Your task to perform on an android device: Set the phone to "Do not disturb". Image 0: 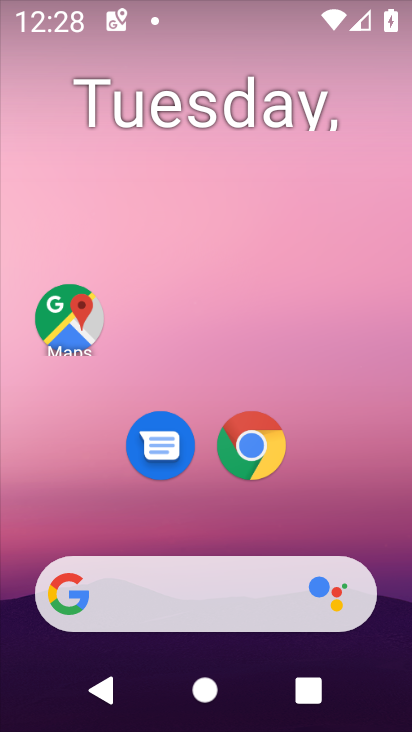
Step 0: drag from (384, 540) to (370, 255)
Your task to perform on an android device: Set the phone to "Do not disturb". Image 1: 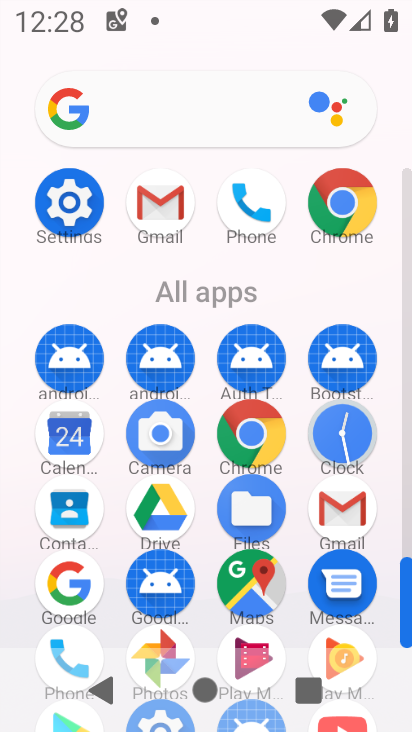
Step 1: drag from (385, 540) to (384, 328)
Your task to perform on an android device: Set the phone to "Do not disturb". Image 2: 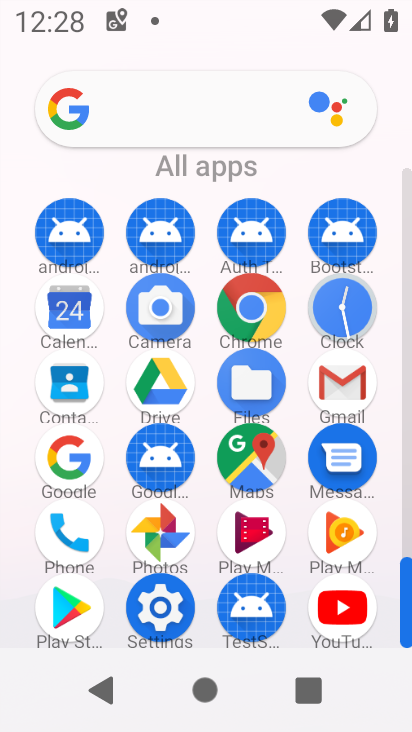
Step 2: click (138, 616)
Your task to perform on an android device: Set the phone to "Do not disturb". Image 3: 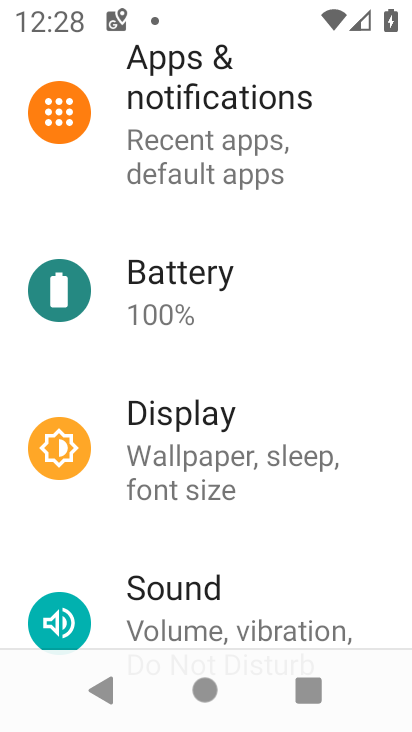
Step 3: drag from (337, 288) to (345, 433)
Your task to perform on an android device: Set the phone to "Do not disturb". Image 4: 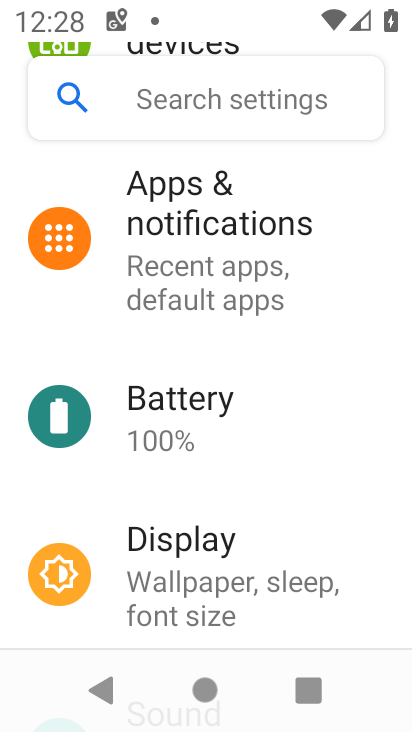
Step 4: drag from (342, 267) to (341, 438)
Your task to perform on an android device: Set the phone to "Do not disturb". Image 5: 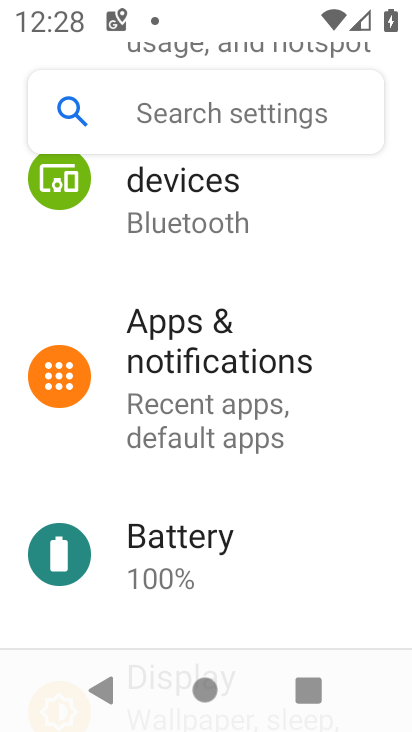
Step 5: drag from (353, 214) to (340, 363)
Your task to perform on an android device: Set the phone to "Do not disturb". Image 6: 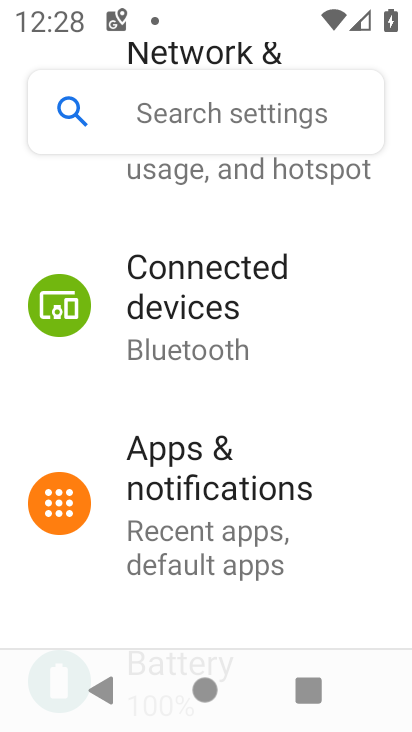
Step 6: drag from (351, 231) to (353, 362)
Your task to perform on an android device: Set the phone to "Do not disturb". Image 7: 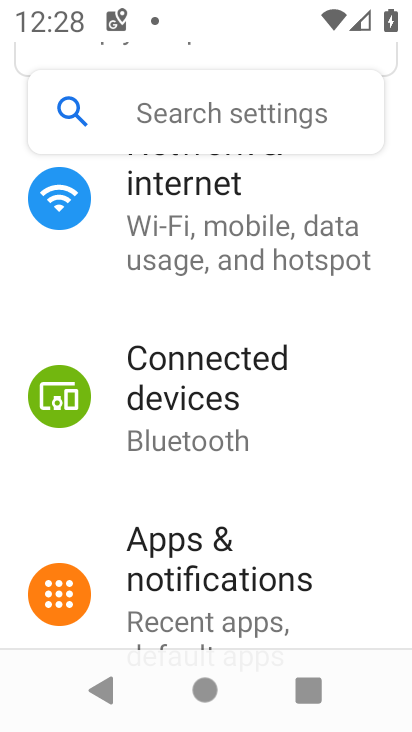
Step 7: drag from (376, 206) to (379, 378)
Your task to perform on an android device: Set the phone to "Do not disturb". Image 8: 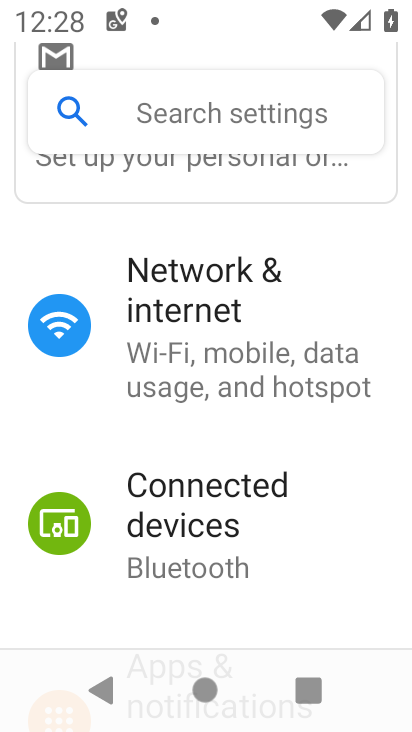
Step 8: drag from (382, 234) to (384, 399)
Your task to perform on an android device: Set the phone to "Do not disturb". Image 9: 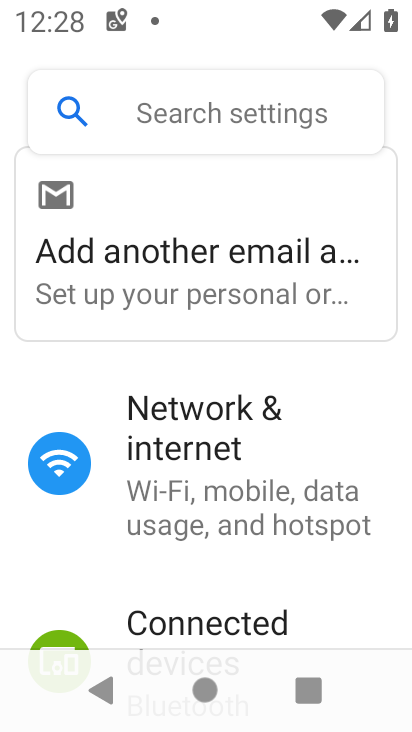
Step 9: drag from (381, 432) to (378, 319)
Your task to perform on an android device: Set the phone to "Do not disturb". Image 10: 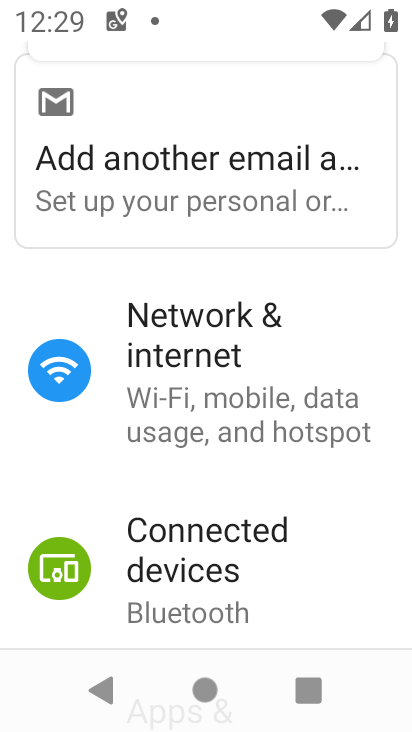
Step 10: drag from (369, 521) to (374, 382)
Your task to perform on an android device: Set the phone to "Do not disturb". Image 11: 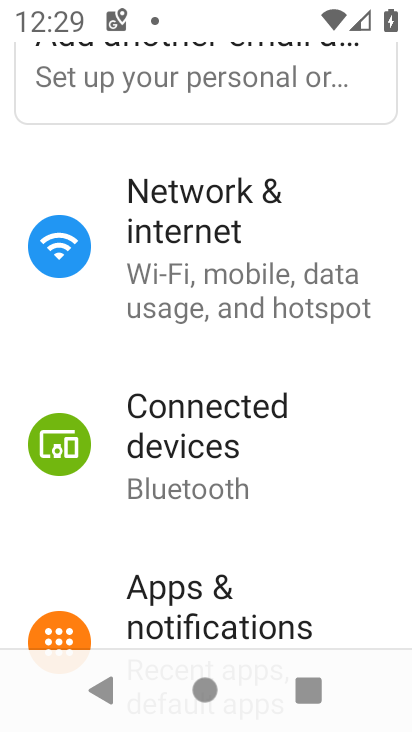
Step 11: drag from (366, 507) to (369, 380)
Your task to perform on an android device: Set the phone to "Do not disturb". Image 12: 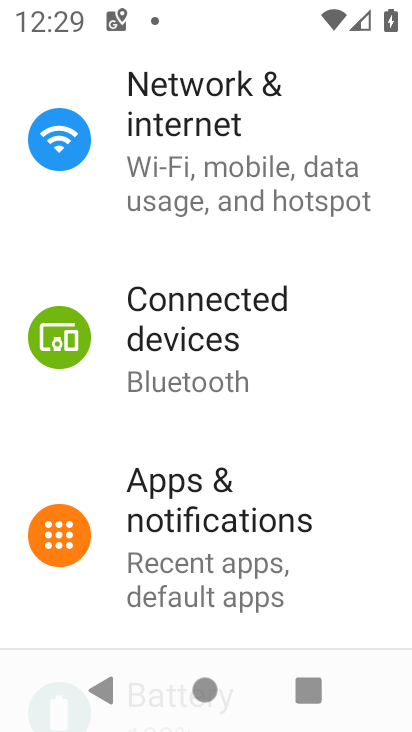
Step 12: drag from (361, 542) to (352, 424)
Your task to perform on an android device: Set the phone to "Do not disturb". Image 13: 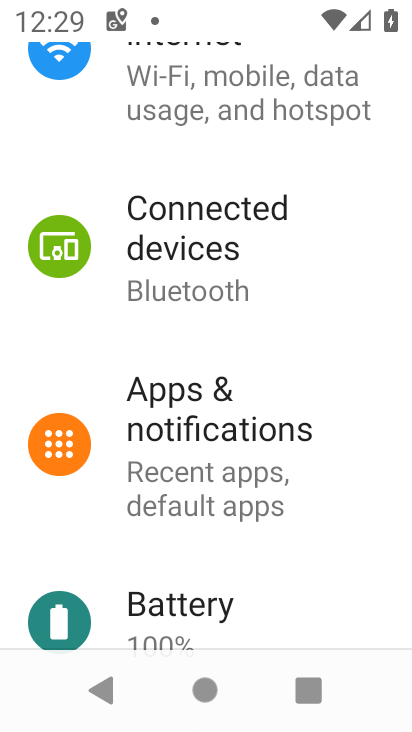
Step 13: drag from (352, 576) to (358, 432)
Your task to perform on an android device: Set the phone to "Do not disturb". Image 14: 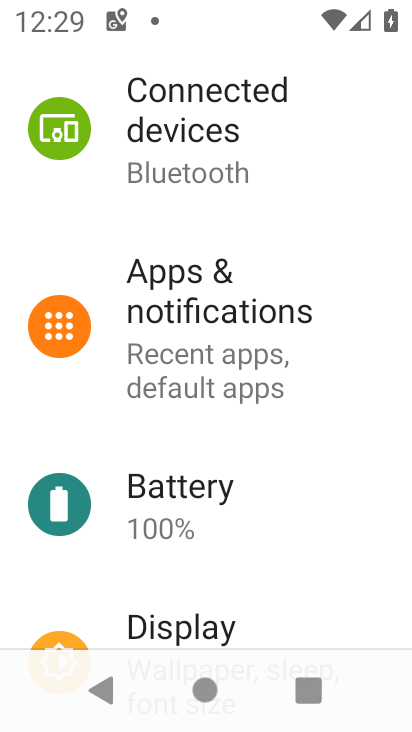
Step 14: drag from (352, 577) to (347, 402)
Your task to perform on an android device: Set the phone to "Do not disturb". Image 15: 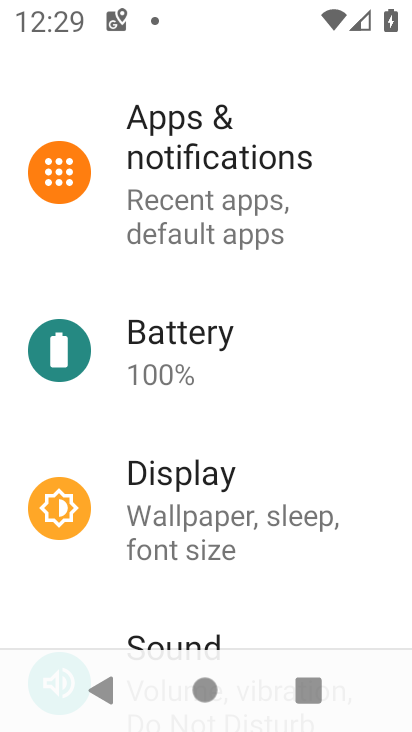
Step 15: drag from (356, 589) to (357, 434)
Your task to perform on an android device: Set the phone to "Do not disturb". Image 16: 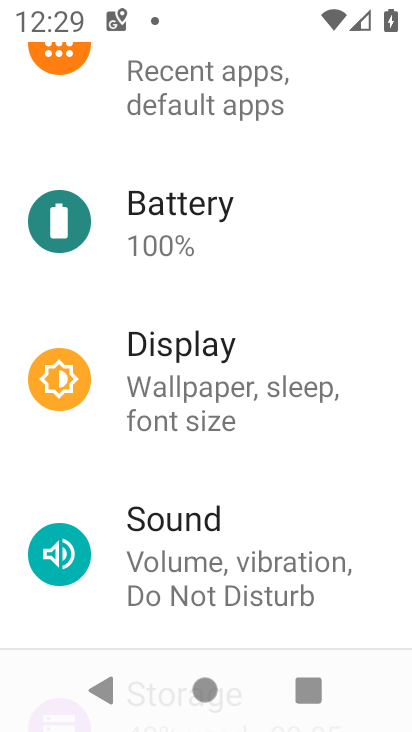
Step 16: drag from (359, 591) to (361, 434)
Your task to perform on an android device: Set the phone to "Do not disturb". Image 17: 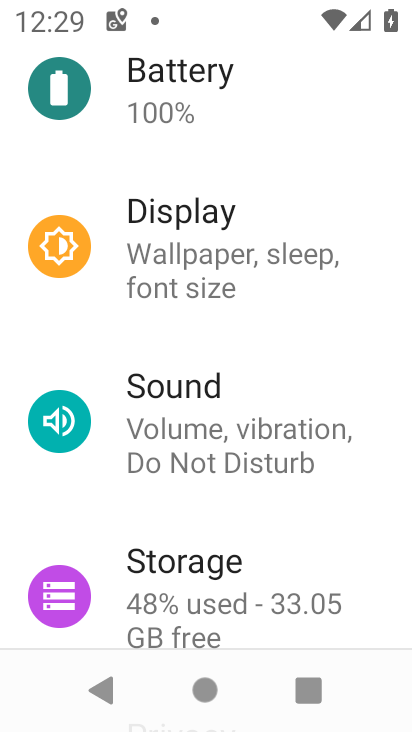
Step 17: drag from (363, 581) to (366, 467)
Your task to perform on an android device: Set the phone to "Do not disturb". Image 18: 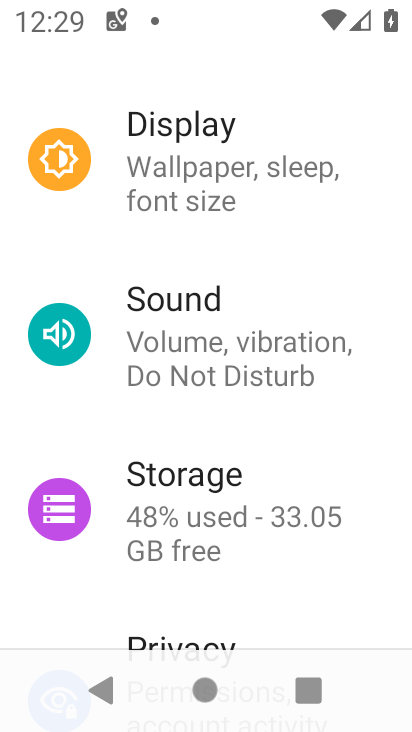
Step 18: click (313, 360)
Your task to perform on an android device: Set the phone to "Do not disturb". Image 19: 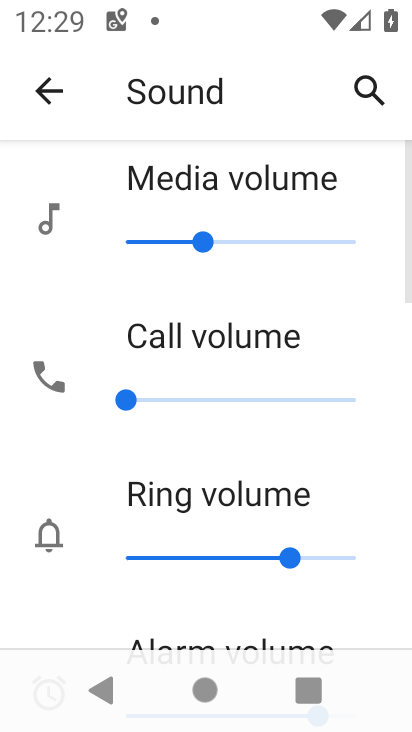
Step 19: drag from (347, 536) to (349, 376)
Your task to perform on an android device: Set the phone to "Do not disturb". Image 20: 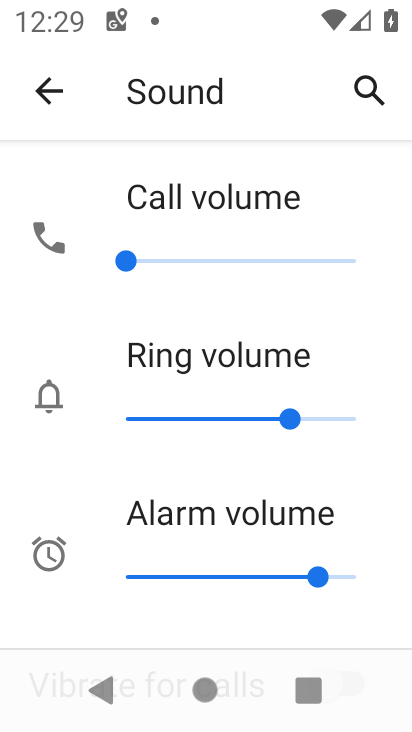
Step 20: drag from (362, 600) to (366, 433)
Your task to perform on an android device: Set the phone to "Do not disturb". Image 21: 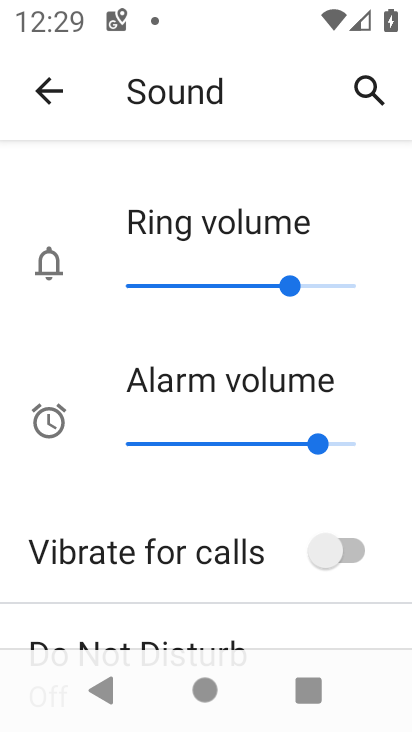
Step 21: drag from (368, 616) to (377, 432)
Your task to perform on an android device: Set the phone to "Do not disturb". Image 22: 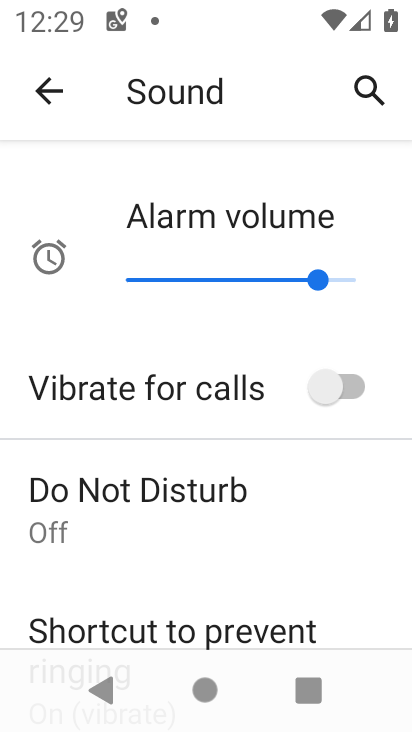
Step 22: click (175, 519)
Your task to perform on an android device: Set the phone to "Do not disturb". Image 23: 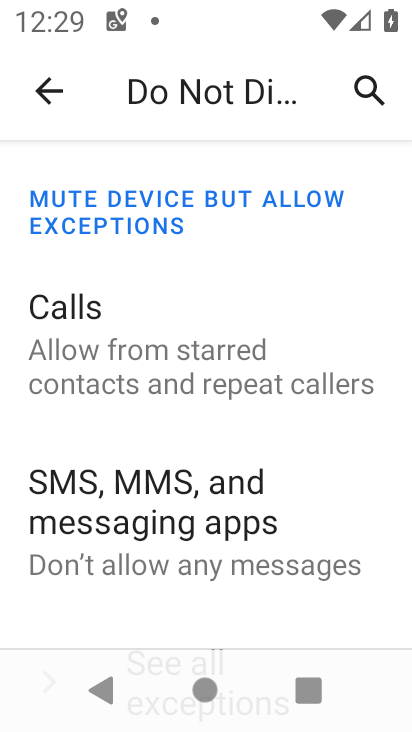
Step 23: drag from (360, 560) to (355, 409)
Your task to perform on an android device: Set the phone to "Do not disturb". Image 24: 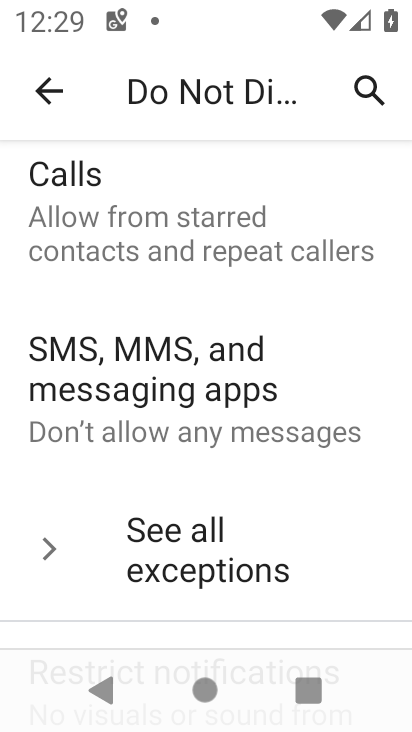
Step 24: drag from (345, 584) to (350, 448)
Your task to perform on an android device: Set the phone to "Do not disturb". Image 25: 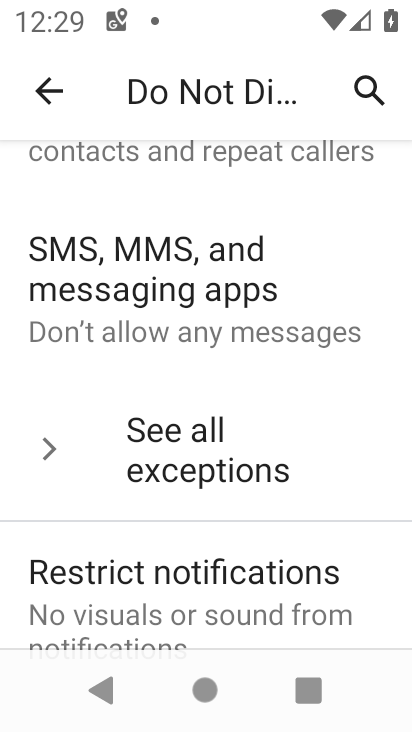
Step 25: drag from (375, 616) to (374, 444)
Your task to perform on an android device: Set the phone to "Do not disturb". Image 26: 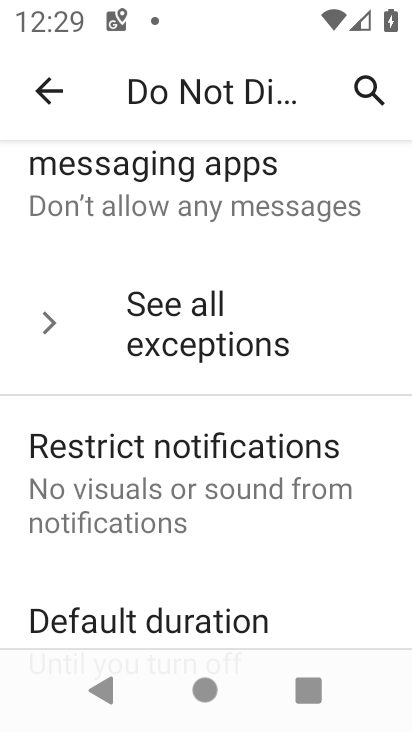
Step 26: drag from (352, 610) to (360, 454)
Your task to perform on an android device: Set the phone to "Do not disturb". Image 27: 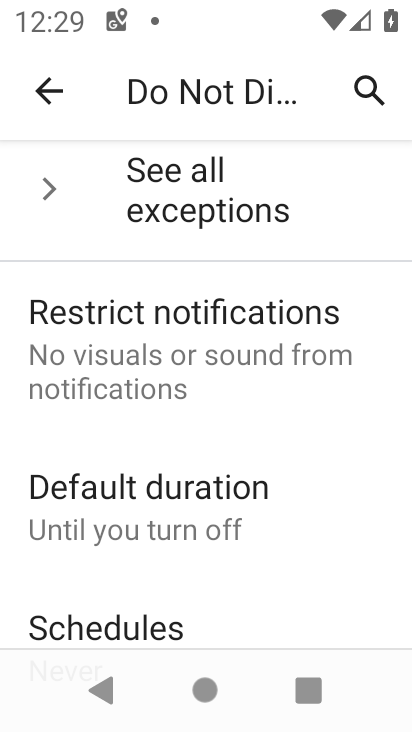
Step 27: drag from (339, 597) to (349, 382)
Your task to perform on an android device: Set the phone to "Do not disturb". Image 28: 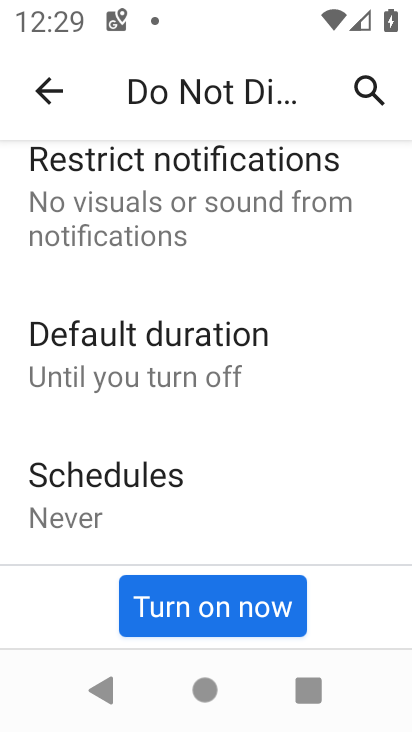
Step 28: click (266, 609)
Your task to perform on an android device: Set the phone to "Do not disturb". Image 29: 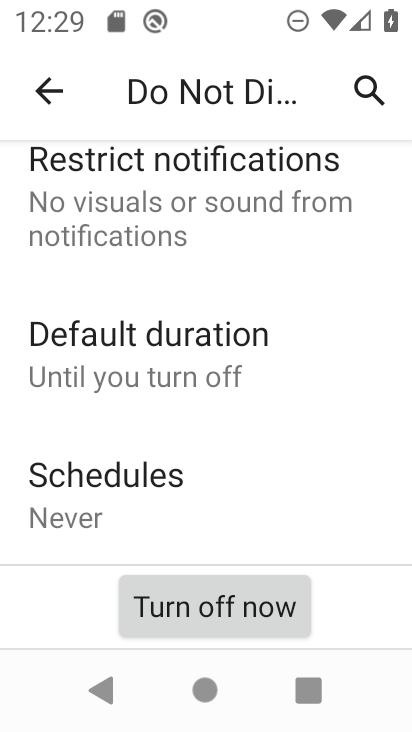
Step 29: task complete